Your task to perform on an android device: check out phone information Image 0: 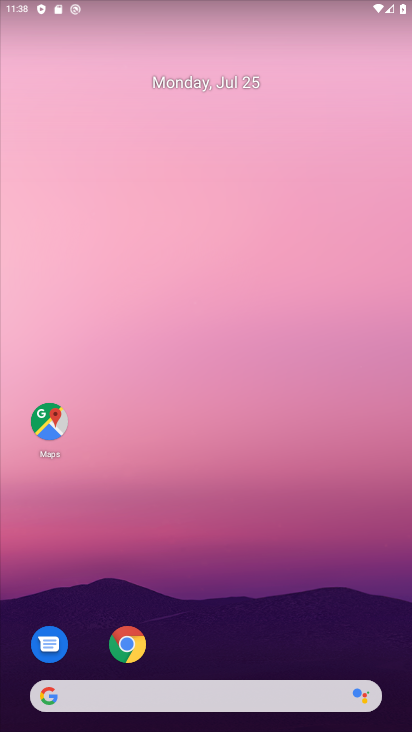
Step 0: drag from (303, 498) to (363, 13)
Your task to perform on an android device: check out phone information Image 1: 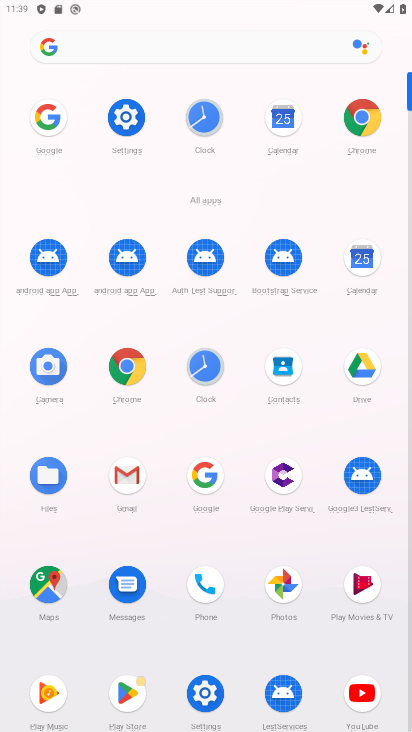
Step 1: click (134, 113)
Your task to perform on an android device: check out phone information Image 2: 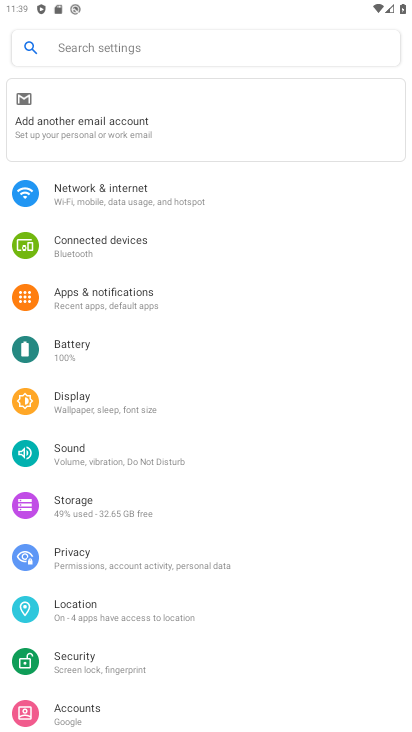
Step 2: drag from (129, 637) to (230, 28)
Your task to perform on an android device: check out phone information Image 3: 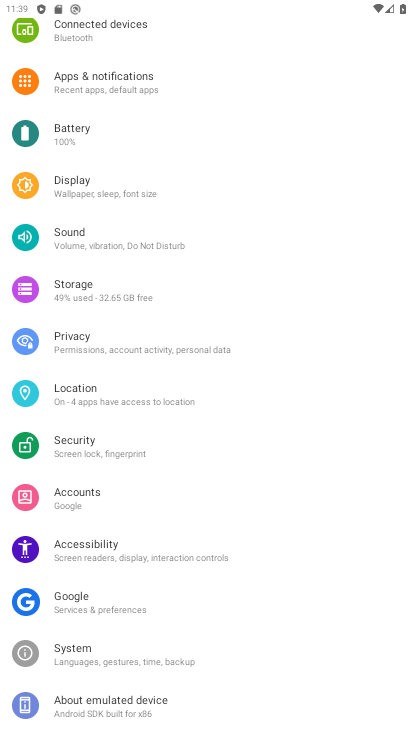
Step 3: drag from (129, 615) to (197, 86)
Your task to perform on an android device: check out phone information Image 4: 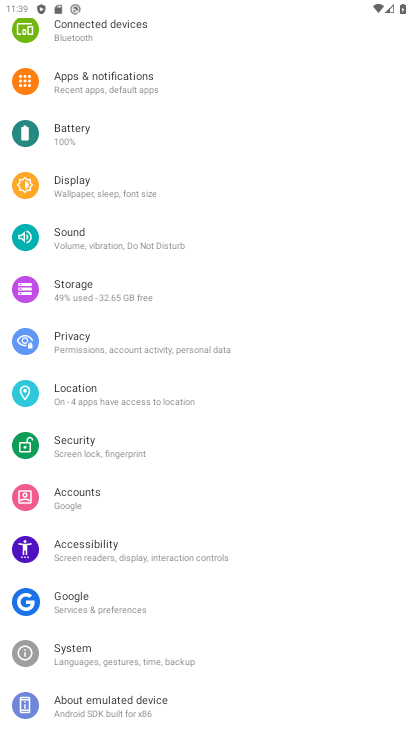
Step 4: click (111, 703)
Your task to perform on an android device: check out phone information Image 5: 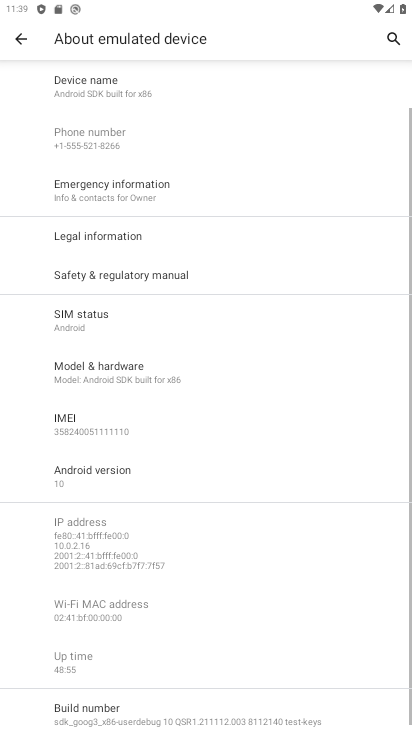
Step 5: task complete